Your task to perform on an android device: Open network settings Image 0: 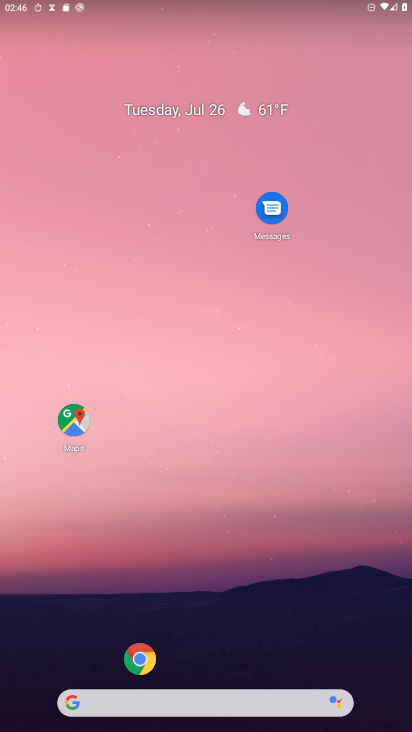
Step 0: drag from (34, 682) to (234, 226)
Your task to perform on an android device: Open network settings Image 1: 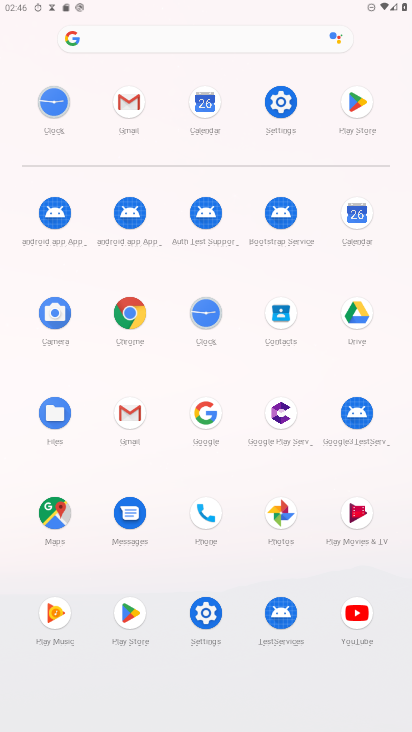
Step 1: click (206, 613)
Your task to perform on an android device: Open network settings Image 2: 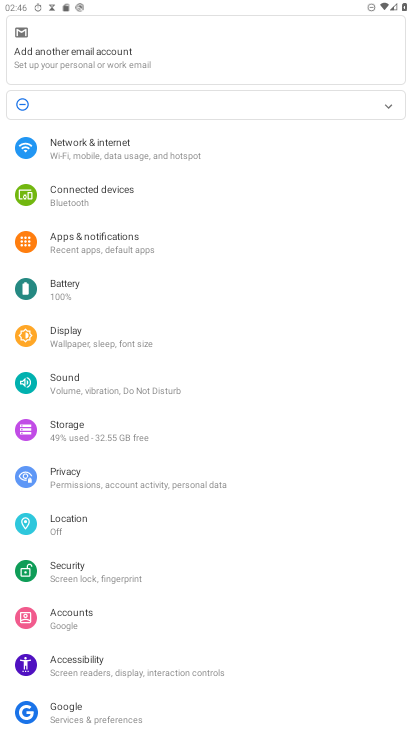
Step 2: click (132, 142)
Your task to perform on an android device: Open network settings Image 3: 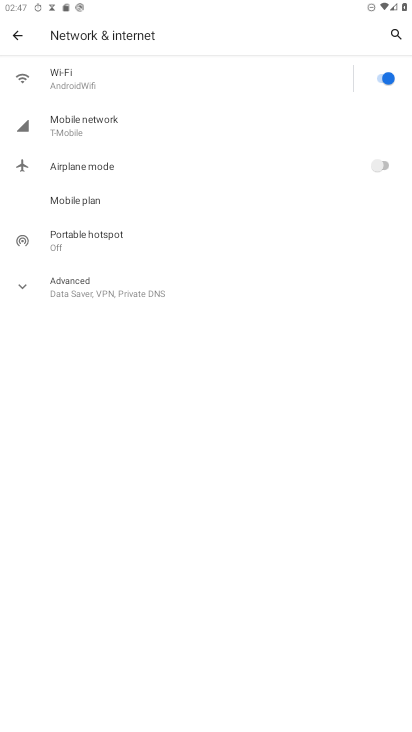
Step 3: task complete